Your task to perform on an android device: turn off translation in the chrome app Image 0: 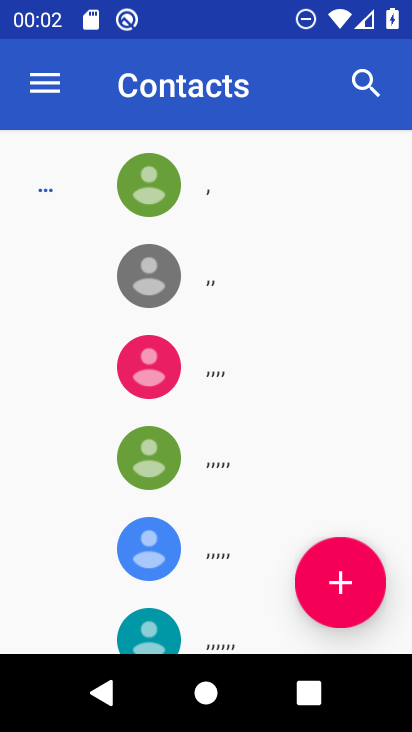
Step 0: press home button
Your task to perform on an android device: turn off translation in the chrome app Image 1: 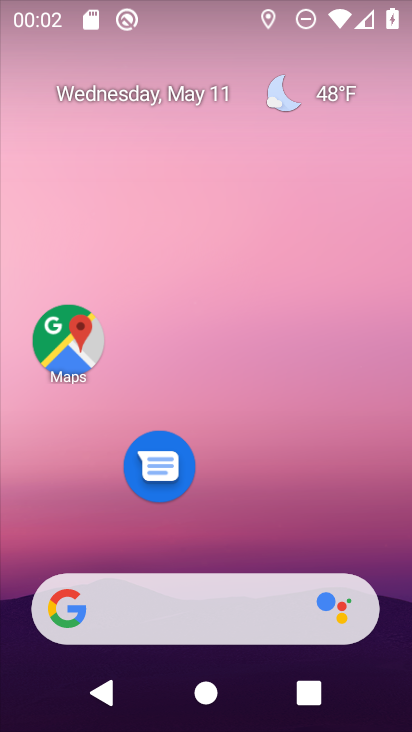
Step 1: drag from (246, 536) to (290, 0)
Your task to perform on an android device: turn off translation in the chrome app Image 2: 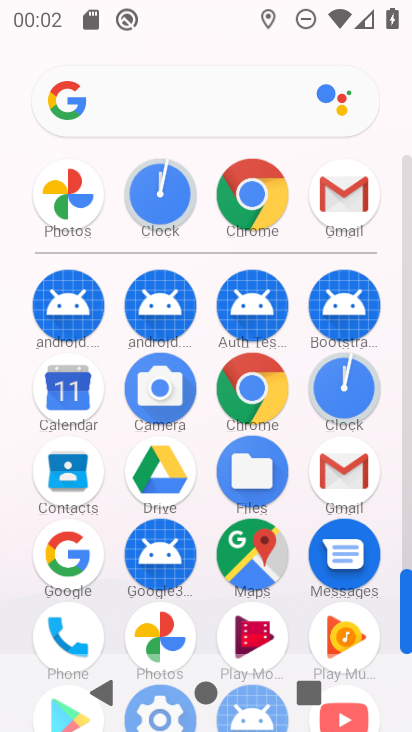
Step 2: click (244, 175)
Your task to perform on an android device: turn off translation in the chrome app Image 3: 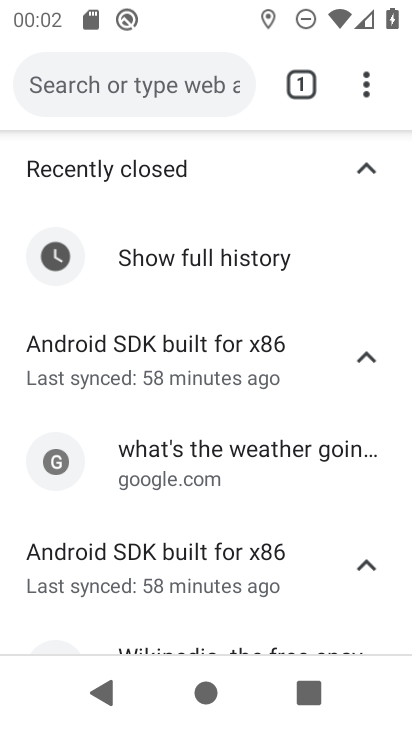
Step 3: click (359, 83)
Your task to perform on an android device: turn off translation in the chrome app Image 4: 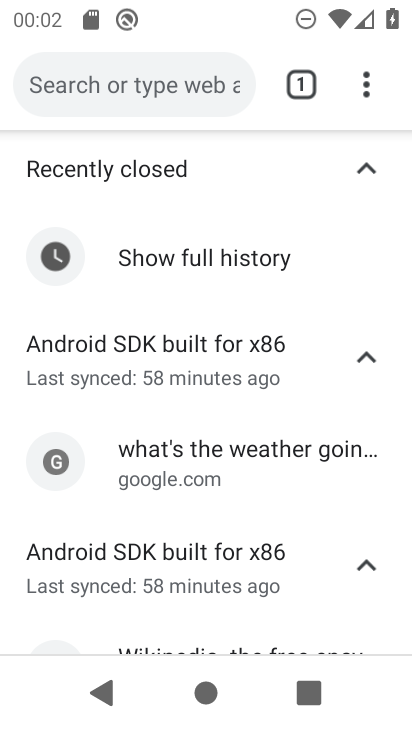
Step 4: click (371, 88)
Your task to perform on an android device: turn off translation in the chrome app Image 5: 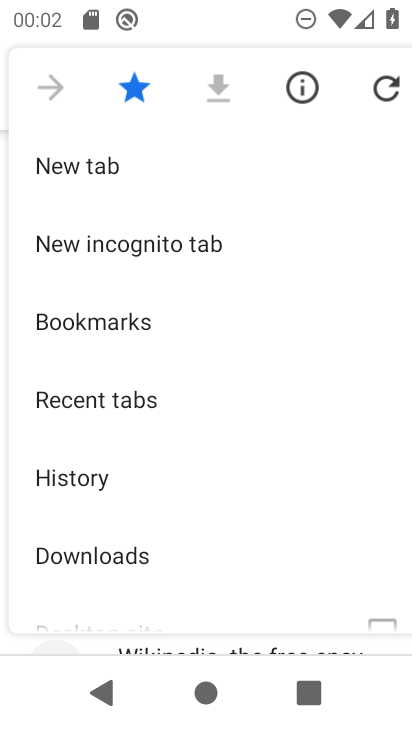
Step 5: drag from (191, 616) to (320, 350)
Your task to perform on an android device: turn off translation in the chrome app Image 6: 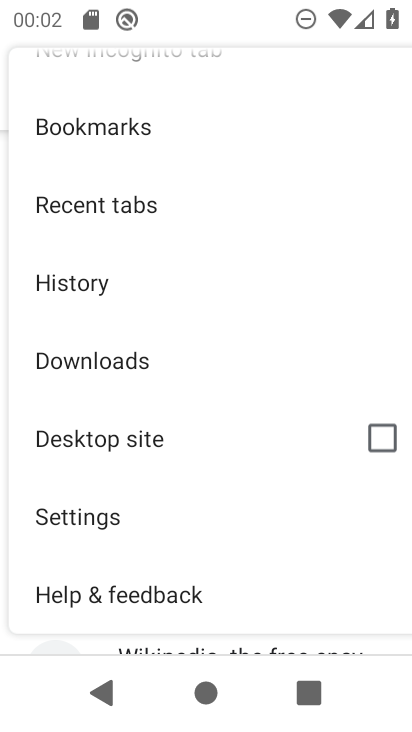
Step 6: click (145, 524)
Your task to perform on an android device: turn off translation in the chrome app Image 7: 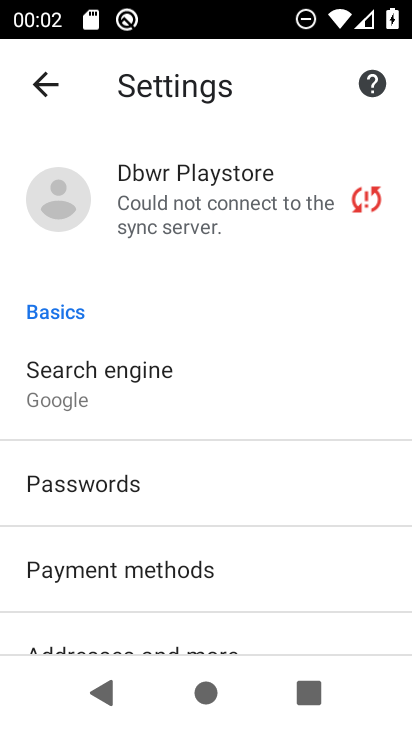
Step 7: drag from (158, 580) to (227, 426)
Your task to perform on an android device: turn off translation in the chrome app Image 8: 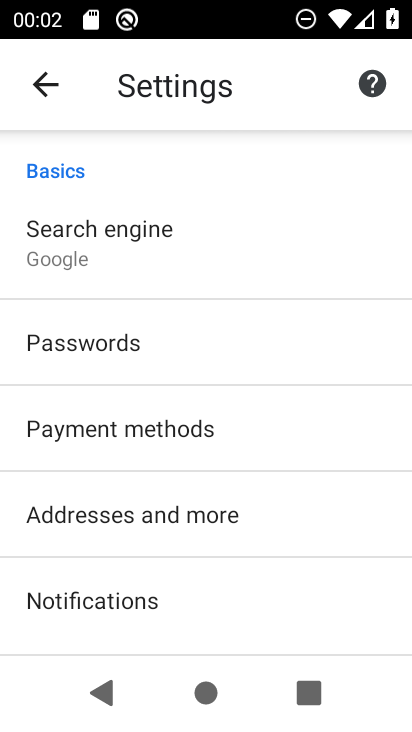
Step 8: drag from (248, 561) to (276, 446)
Your task to perform on an android device: turn off translation in the chrome app Image 9: 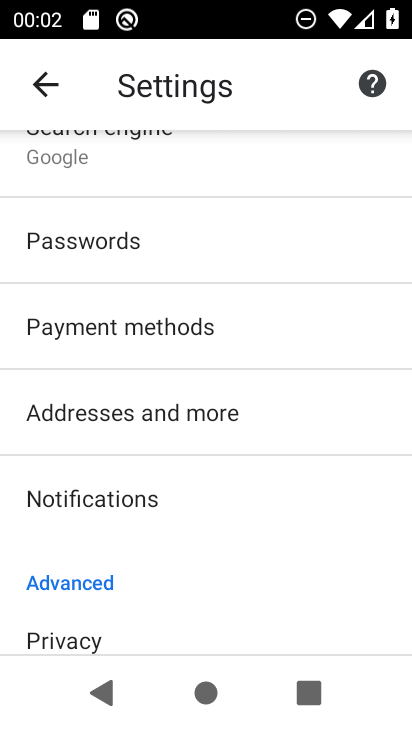
Step 9: drag from (277, 590) to (319, 458)
Your task to perform on an android device: turn off translation in the chrome app Image 10: 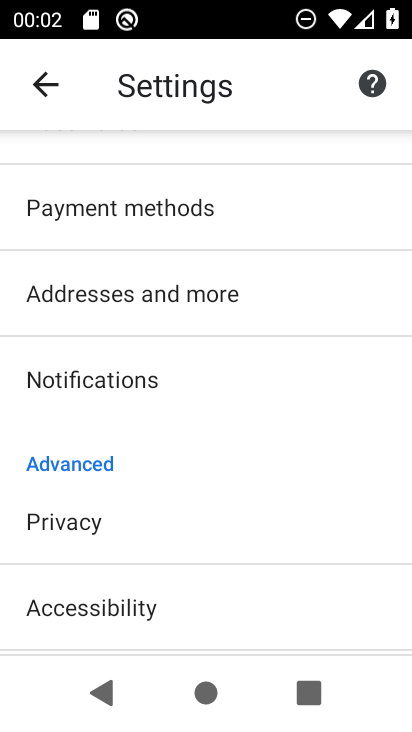
Step 10: drag from (294, 576) to (325, 460)
Your task to perform on an android device: turn off translation in the chrome app Image 11: 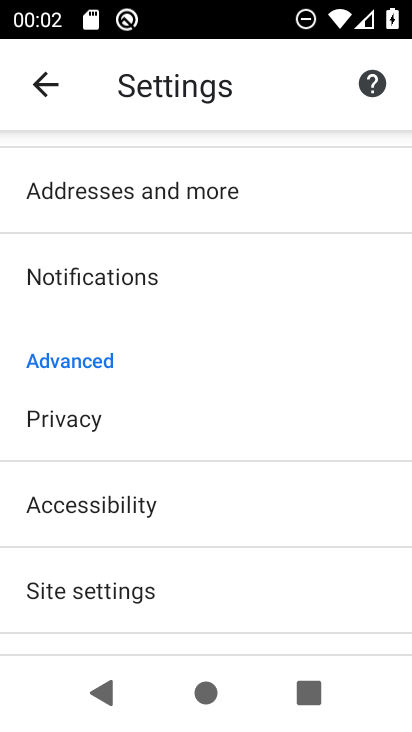
Step 11: drag from (268, 573) to (301, 465)
Your task to perform on an android device: turn off translation in the chrome app Image 12: 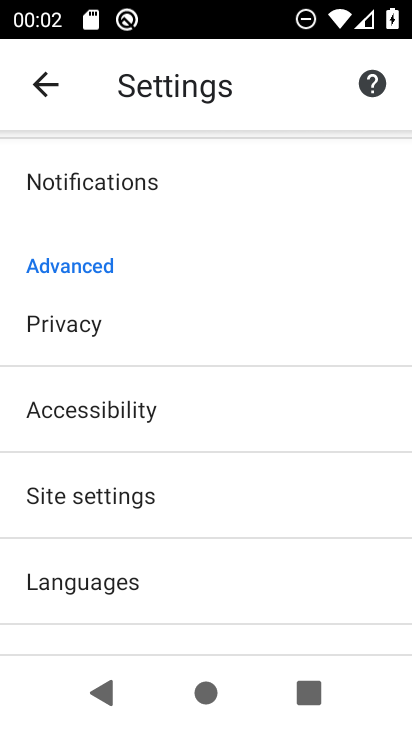
Step 12: click (220, 579)
Your task to perform on an android device: turn off translation in the chrome app Image 13: 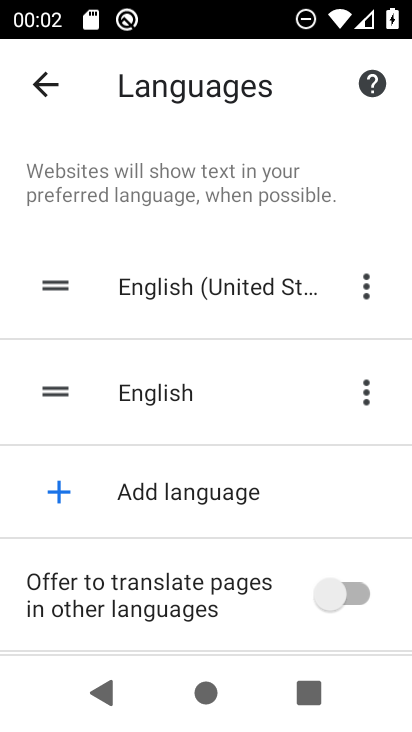
Step 13: task complete